Your task to perform on an android device: turn on location history Image 0: 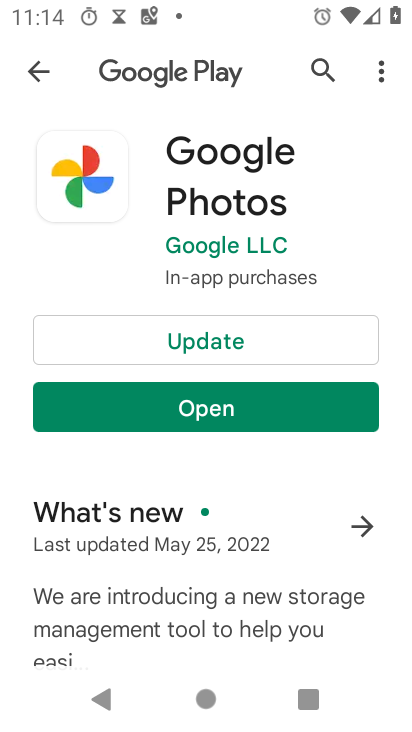
Step 0: press home button
Your task to perform on an android device: turn on location history Image 1: 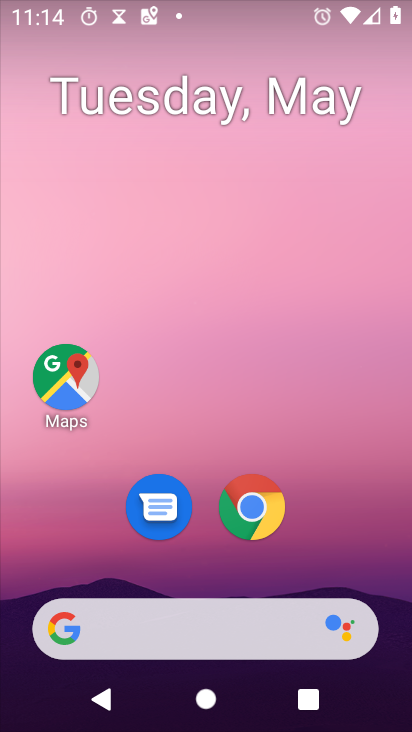
Step 1: drag from (86, 489) to (276, 169)
Your task to perform on an android device: turn on location history Image 2: 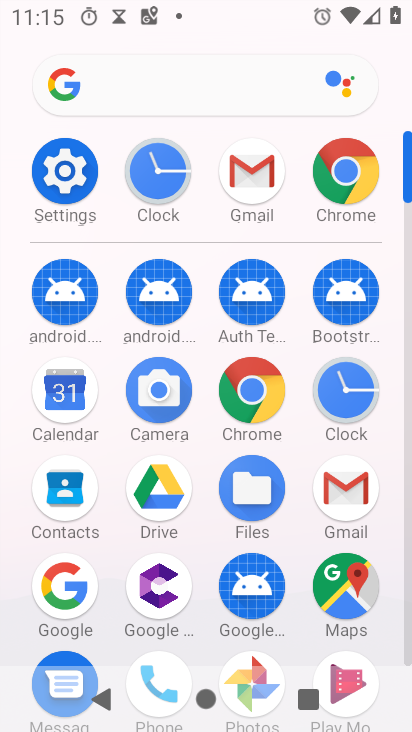
Step 2: click (70, 174)
Your task to perform on an android device: turn on location history Image 3: 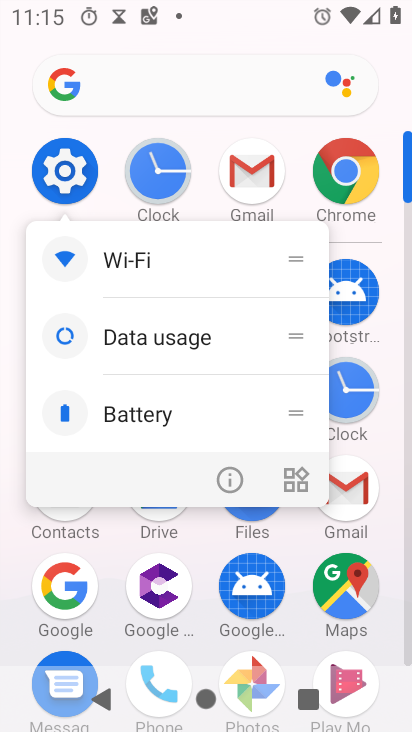
Step 3: click (70, 174)
Your task to perform on an android device: turn on location history Image 4: 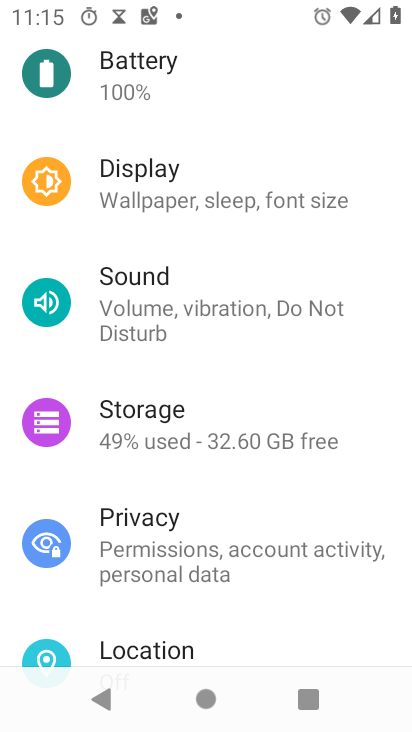
Step 4: click (124, 641)
Your task to perform on an android device: turn on location history Image 5: 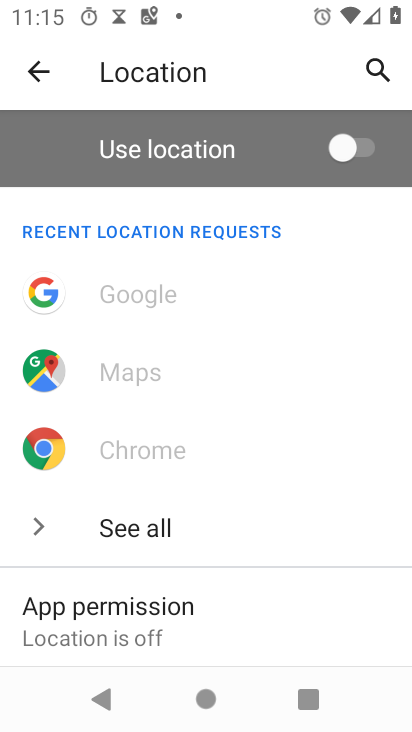
Step 5: drag from (35, 488) to (252, 159)
Your task to perform on an android device: turn on location history Image 6: 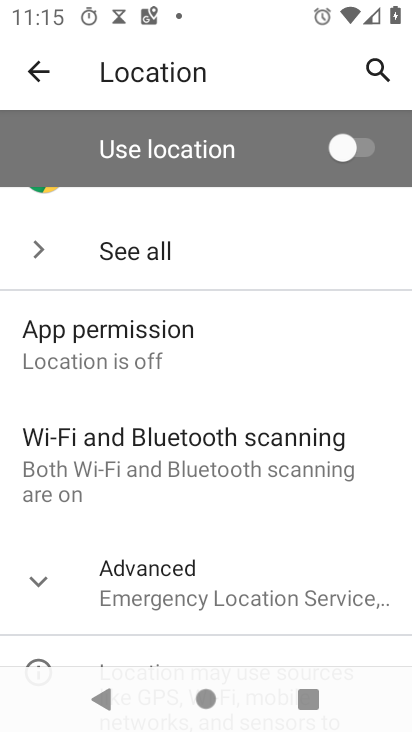
Step 6: click (154, 563)
Your task to perform on an android device: turn on location history Image 7: 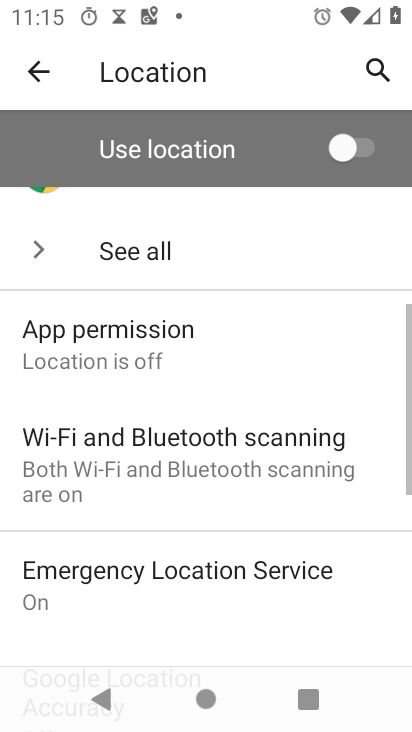
Step 7: drag from (45, 555) to (291, 216)
Your task to perform on an android device: turn on location history Image 8: 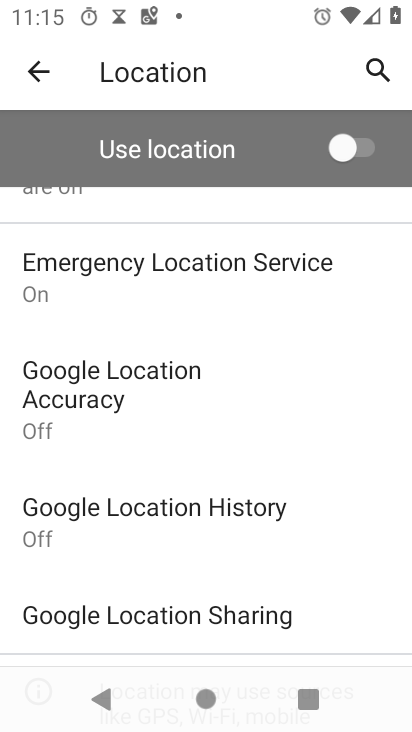
Step 8: click (183, 509)
Your task to perform on an android device: turn on location history Image 9: 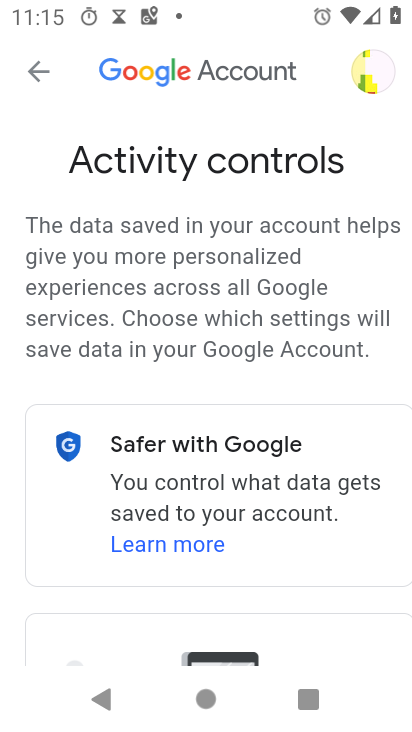
Step 9: drag from (7, 514) to (388, 86)
Your task to perform on an android device: turn on location history Image 10: 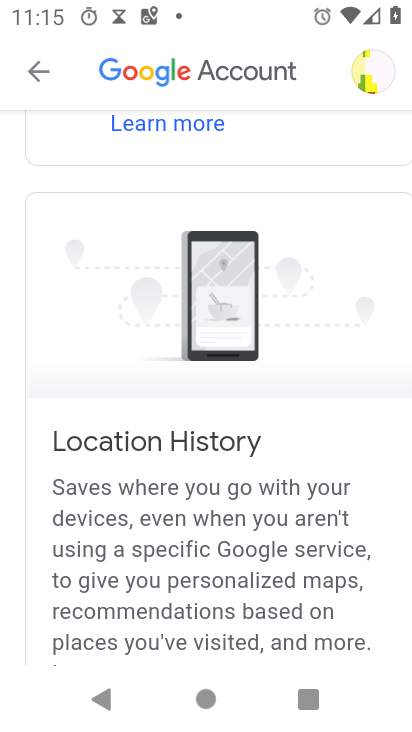
Step 10: drag from (40, 479) to (252, 201)
Your task to perform on an android device: turn on location history Image 11: 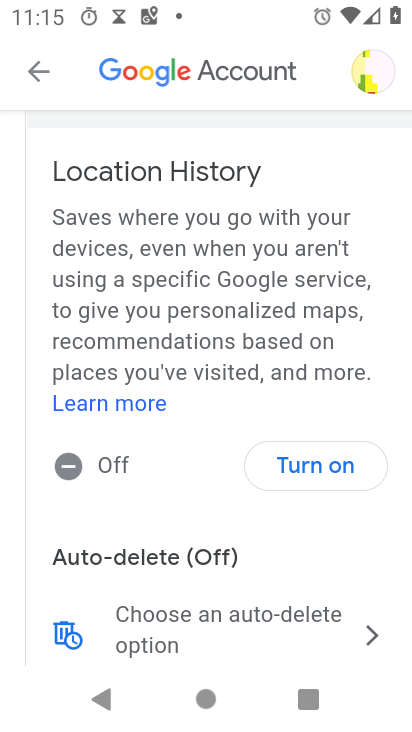
Step 11: click (339, 480)
Your task to perform on an android device: turn on location history Image 12: 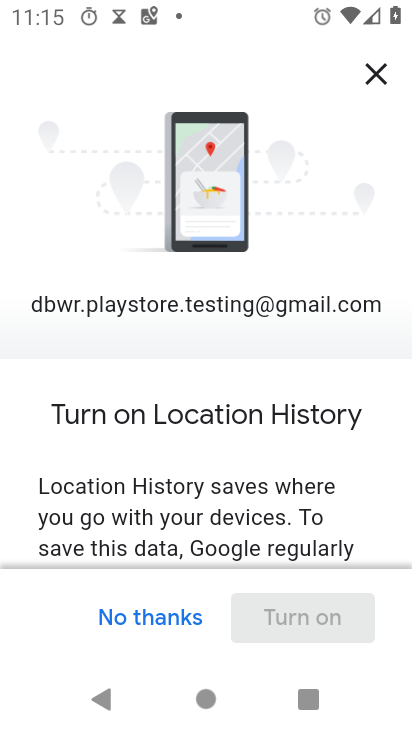
Step 12: drag from (0, 556) to (320, 137)
Your task to perform on an android device: turn on location history Image 13: 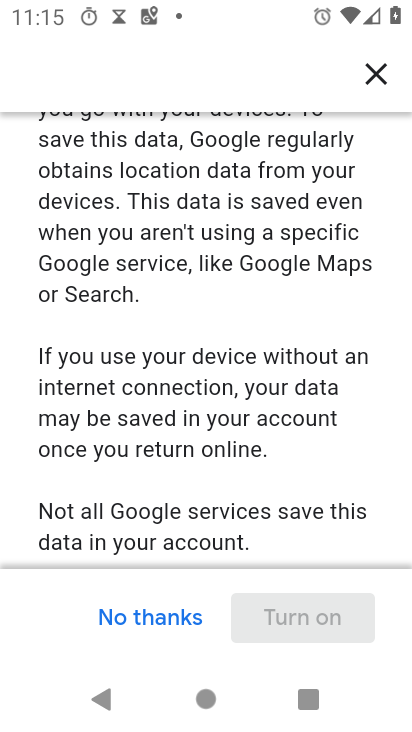
Step 13: drag from (64, 381) to (321, 137)
Your task to perform on an android device: turn on location history Image 14: 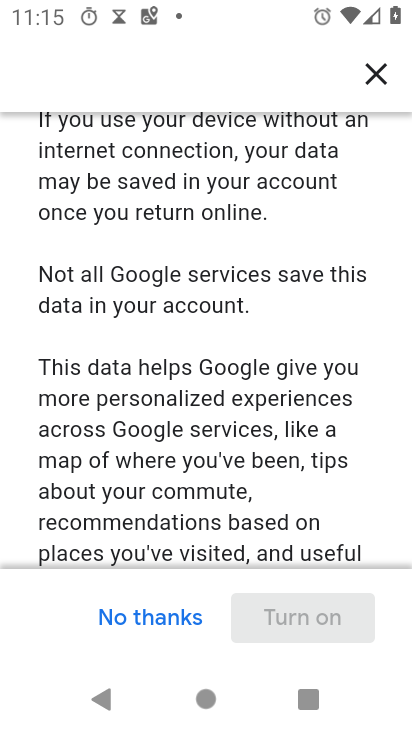
Step 14: drag from (37, 345) to (286, 93)
Your task to perform on an android device: turn on location history Image 15: 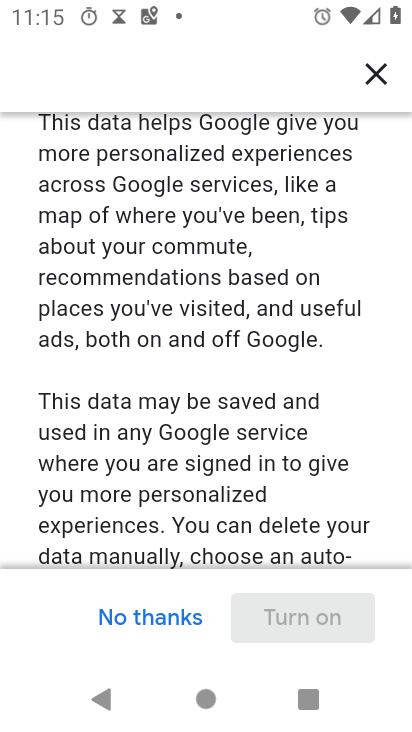
Step 15: drag from (13, 406) to (322, 142)
Your task to perform on an android device: turn on location history Image 16: 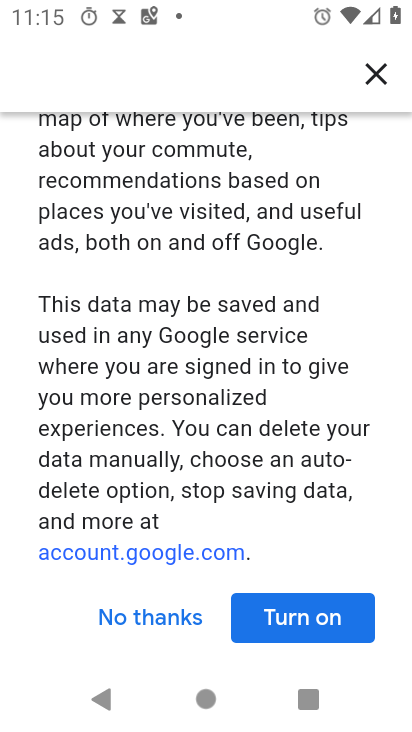
Step 16: click (296, 612)
Your task to perform on an android device: turn on location history Image 17: 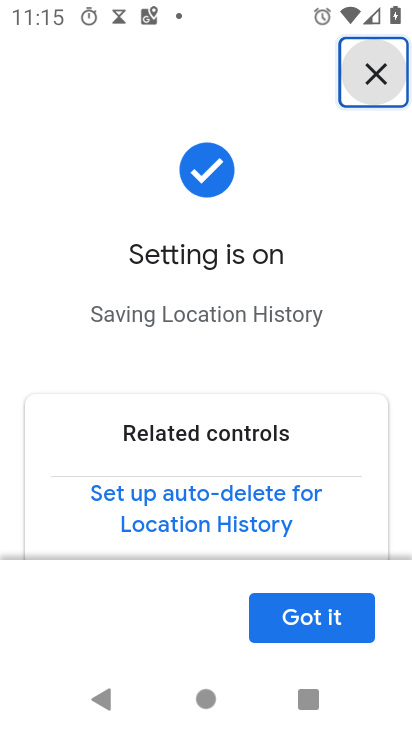
Step 17: click (288, 618)
Your task to perform on an android device: turn on location history Image 18: 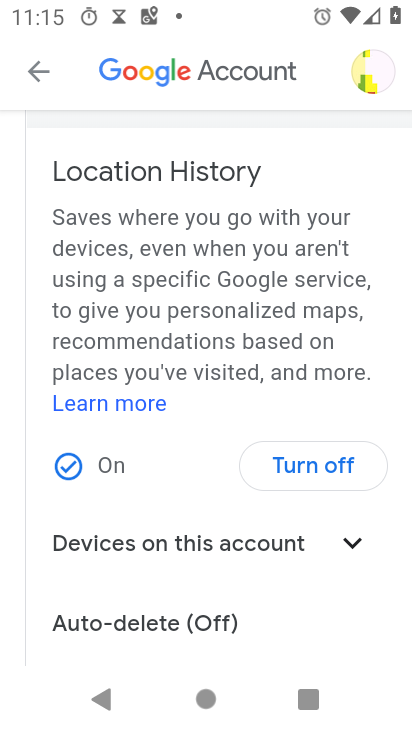
Step 18: task complete